Your task to perform on an android device: add a label to a message in the gmail app Image 0: 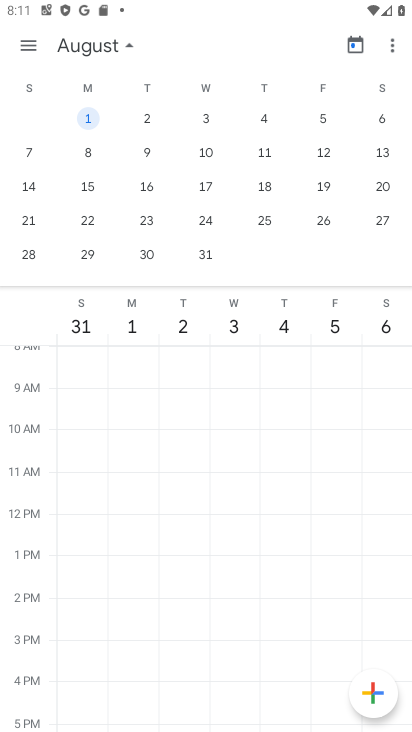
Step 0: press home button
Your task to perform on an android device: add a label to a message in the gmail app Image 1: 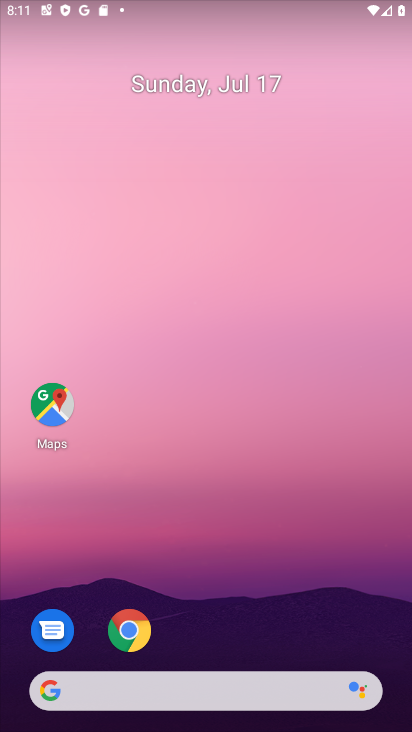
Step 1: drag from (203, 340) to (196, 122)
Your task to perform on an android device: add a label to a message in the gmail app Image 2: 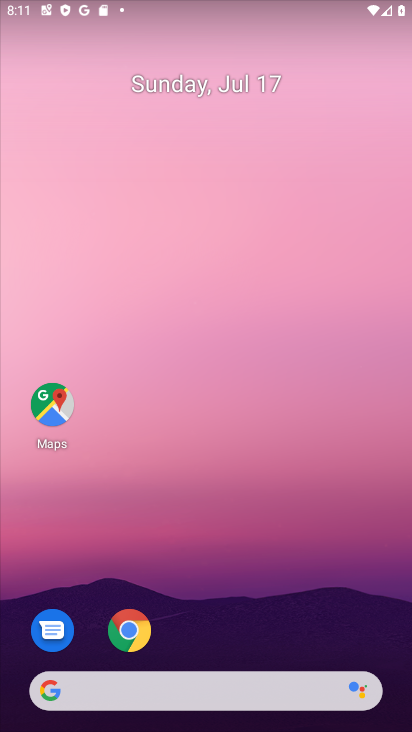
Step 2: drag from (204, 630) to (199, 201)
Your task to perform on an android device: add a label to a message in the gmail app Image 3: 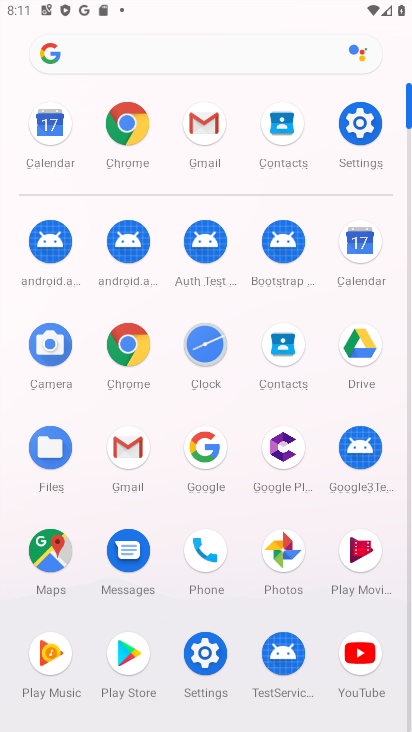
Step 3: click (203, 125)
Your task to perform on an android device: add a label to a message in the gmail app Image 4: 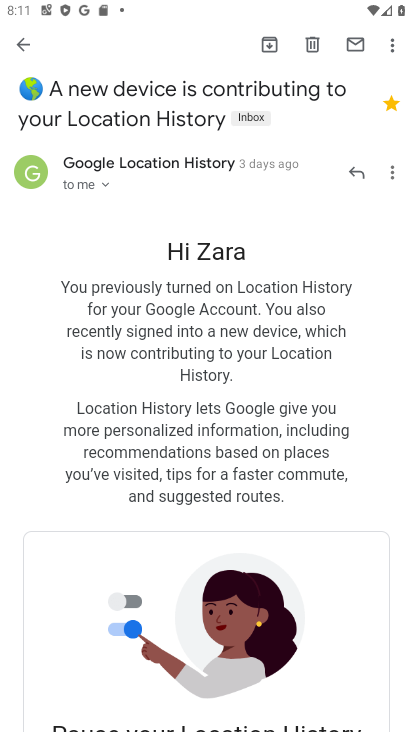
Step 4: click (23, 48)
Your task to perform on an android device: add a label to a message in the gmail app Image 5: 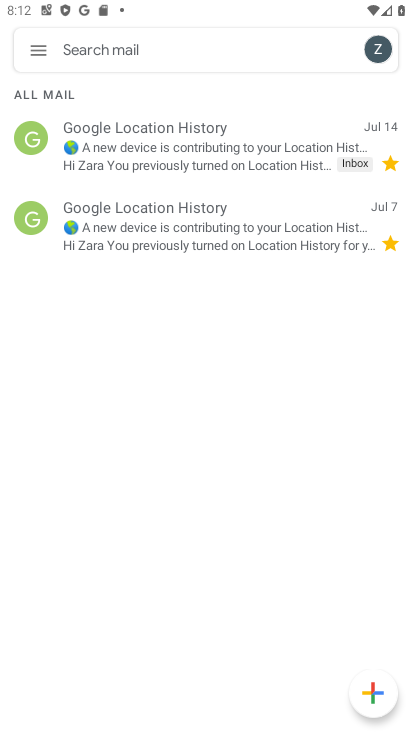
Step 5: click (186, 242)
Your task to perform on an android device: add a label to a message in the gmail app Image 6: 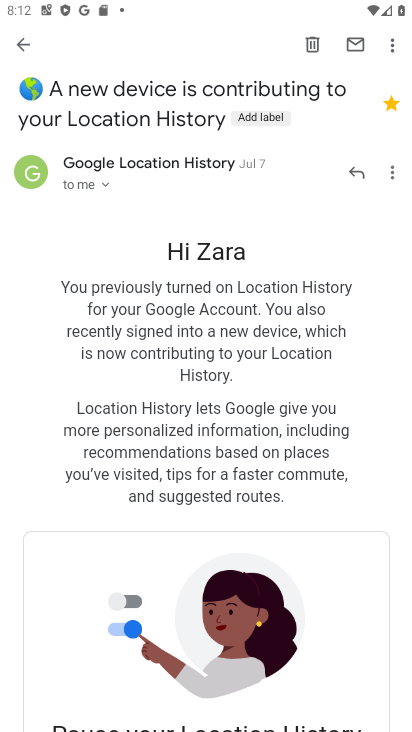
Step 6: click (259, 113)
Your task to perform on an android device: add a label to a message in the gmail app Image 7: 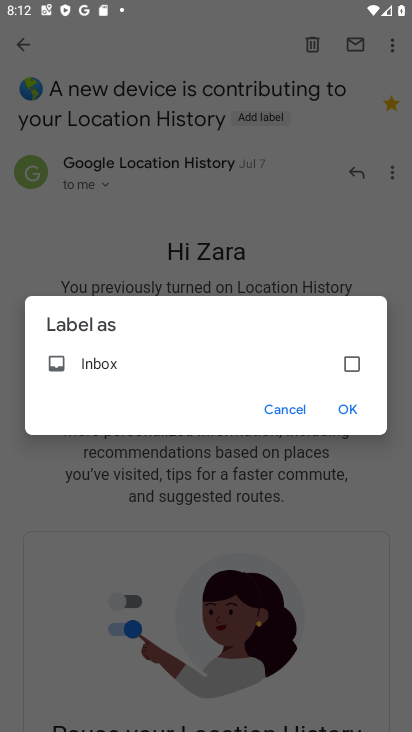
Step 7: click (352, 366)
Your task to perform on an android device: add a label to a message in the gmail app Image 8: 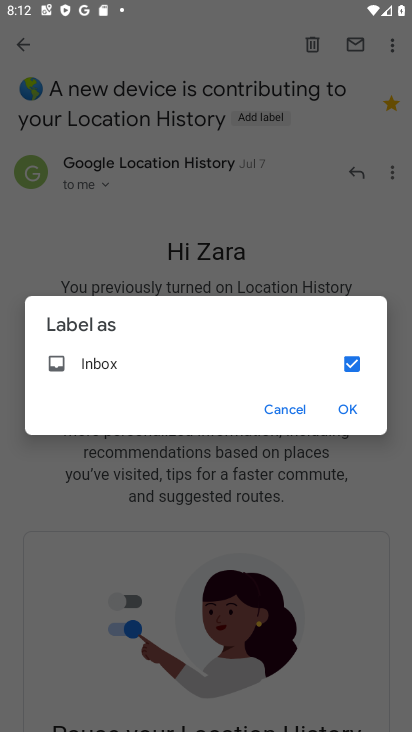
Step 8: click (347, 413)
Your task to perform on an android device: add a label to a message in the gmail app Image 9: 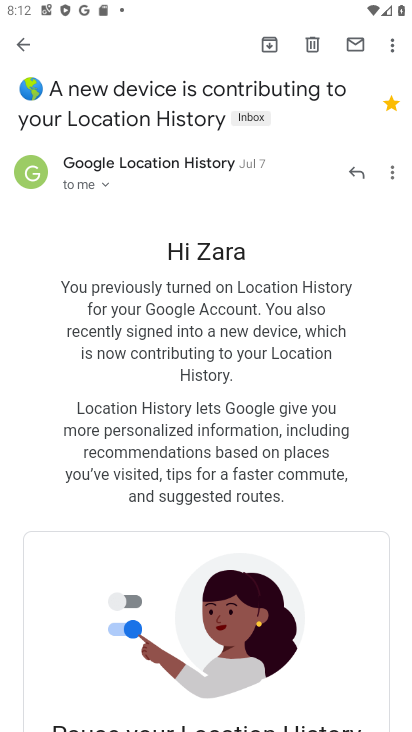
Step 9: task complete